Your task to perform on an android device: change your default location settings in chrome Image 0: 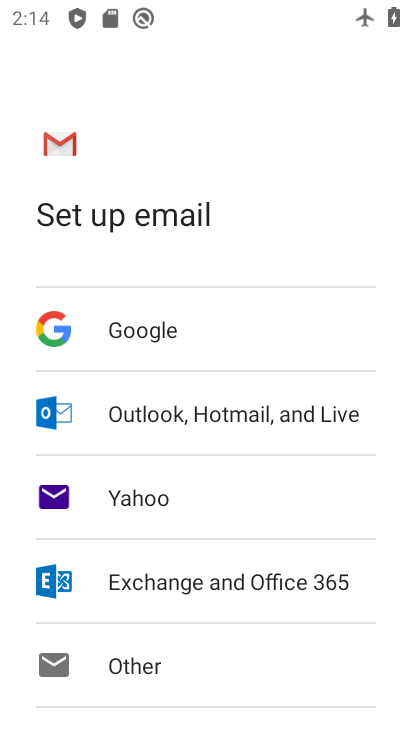
Step 0: press home button
Your task to perform on an android device: change your default location settings in chrome Image 1: 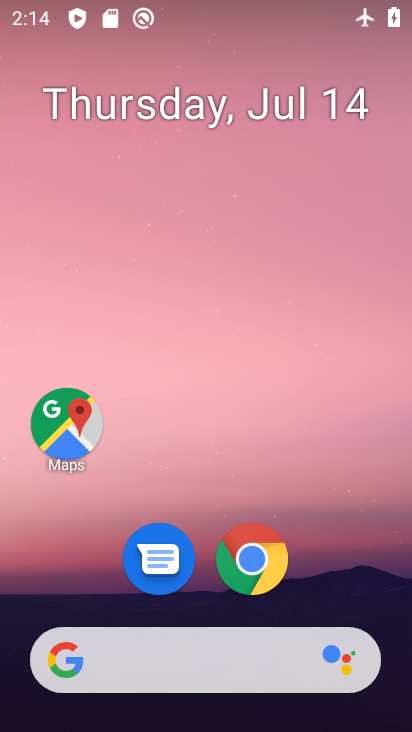
Step 1: drag from (237, 479) to (295, 102)
Your task to perform on an android device: change your default location settings in chrome Image 2: 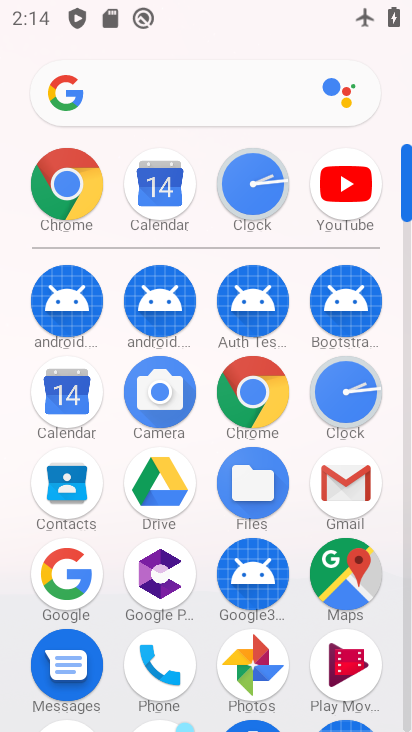
Step 2: drag from (208, 494) to (202, 310)
Your task to perform on an android device: change your default location settings in chrome Image 3: 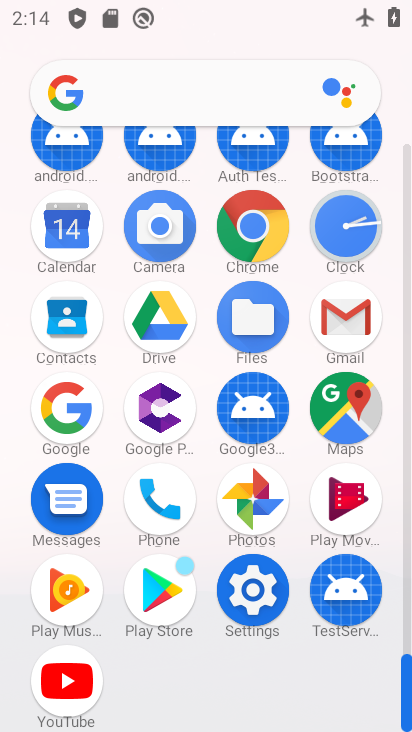
Step 3: click (240, 242)
Your task to perform on an android device: change your default location settings in chrome Image 4: 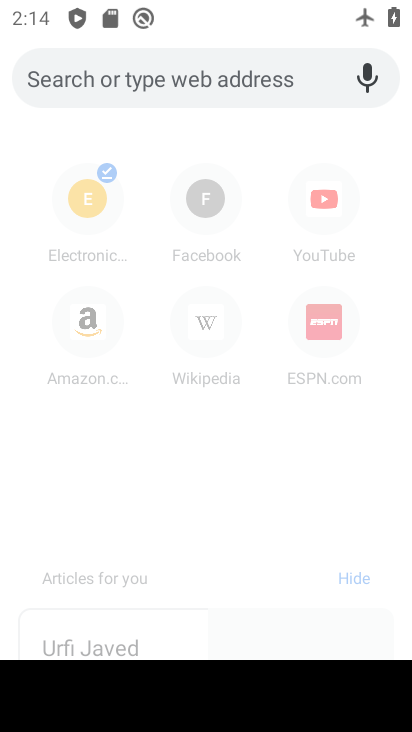
Step 4: click (214, 461)
Your task to perform on an android device: change your default location settings in chrome Image 5: 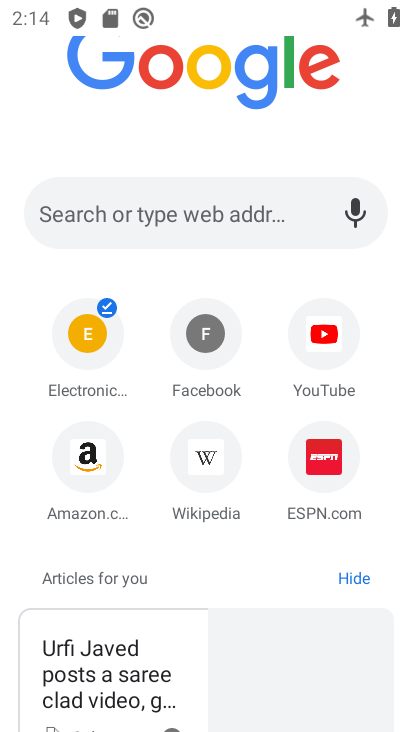
Step 5: drag from (331, 265) to (295, 646)
Your task to perform on an android device: change your default location settings in chrome Image 6: 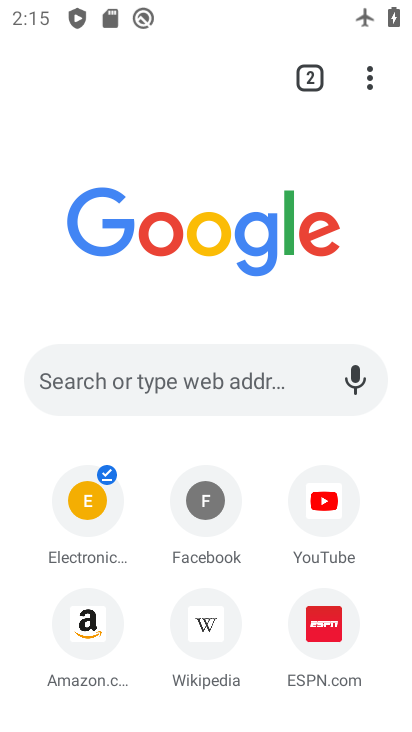
Step 6: click (373, 89)
Your task to perform on an android device: change your default location settings in chrome Image 7: 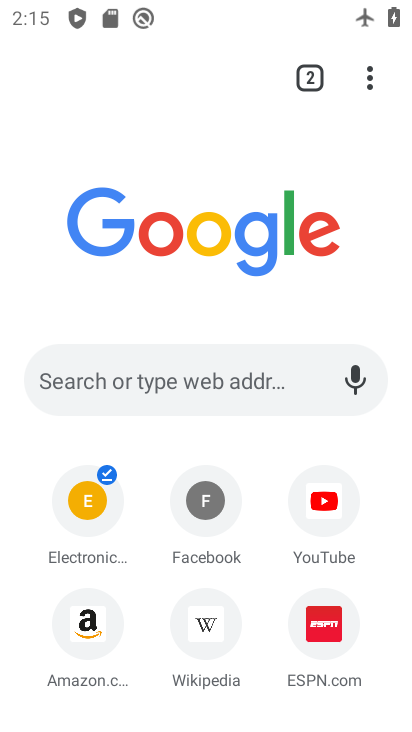
Step 7: click (373, 89)
Your task to perform on an android device: change your default location settings in chrome Image 8: 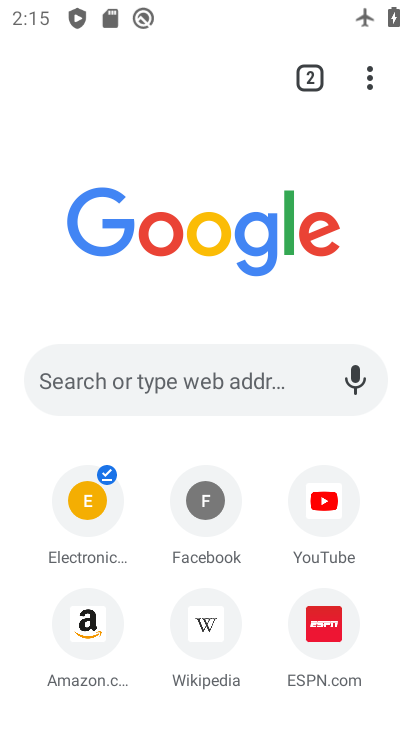
Step 8: click (373, 89)
Your task to perform on an android device: change your default location settings in chrome Image 9: 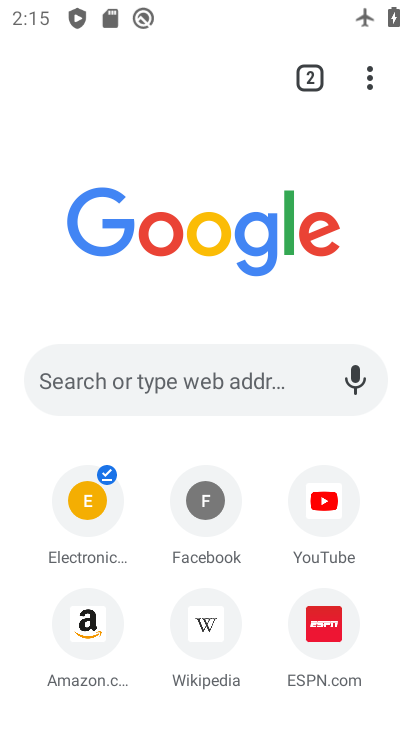
Step 9: click (373, 89)
Your task to perform on an android device: change your default location settings in chrome Image 10: 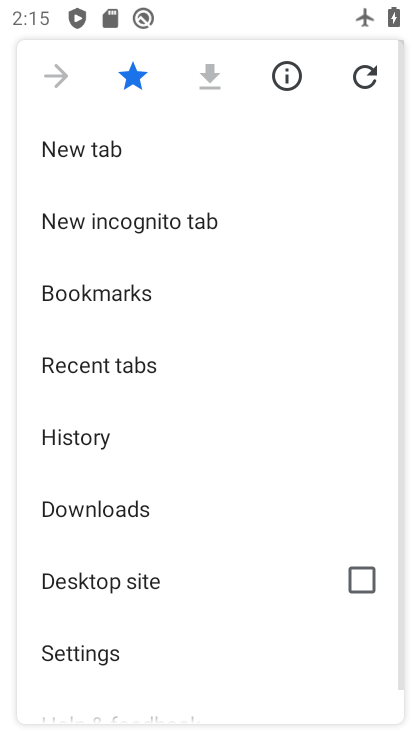
Step 10: drag from (157, 577) to (202, 216)
Your task to perform on an android device: change your default location settings in chrome Image 11: 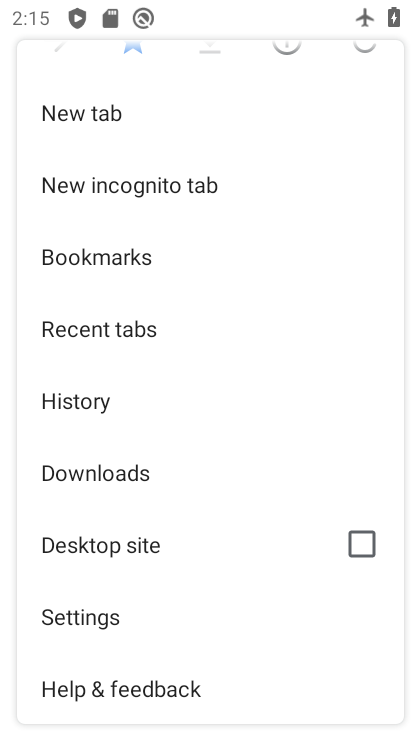
Step 11: drag from (148, 595) to (175, 331)
Your task to perform on an android device: change your default location settings in chrome Image 12: 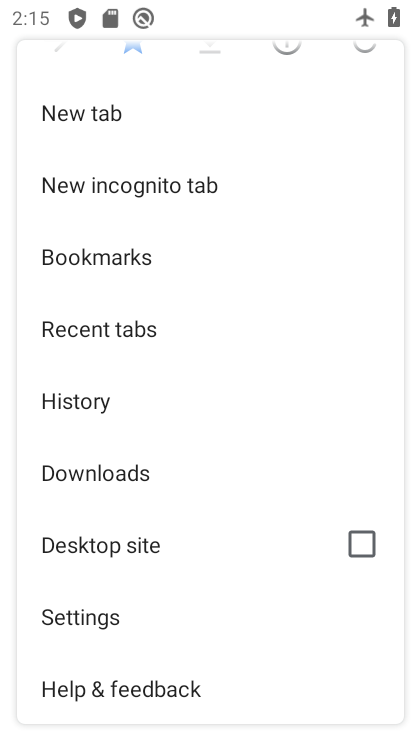
Step 12: click (91, 616)
Your task to perform on an android device: change your default location settings in chrome Image 13: 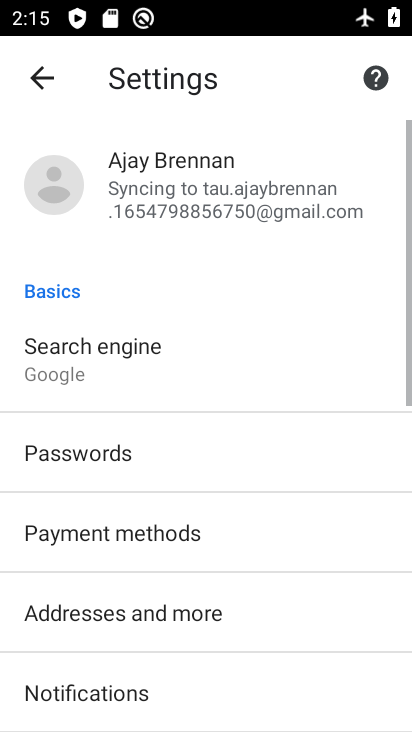
Step 13: drag from (115, 531) to (155, 359)
Your task to perform on an android device: change your default location settings in chrome Image 14: 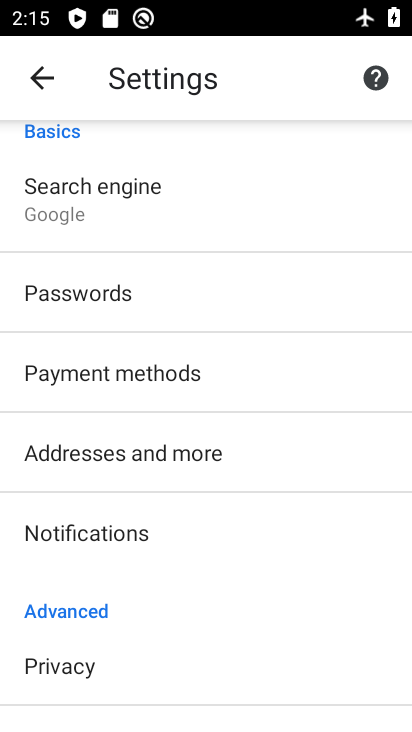
Step 14: drag from (142, 592) to (151, 386)
Your task to perform on an android device: change your default location settings in chrome Image 15: 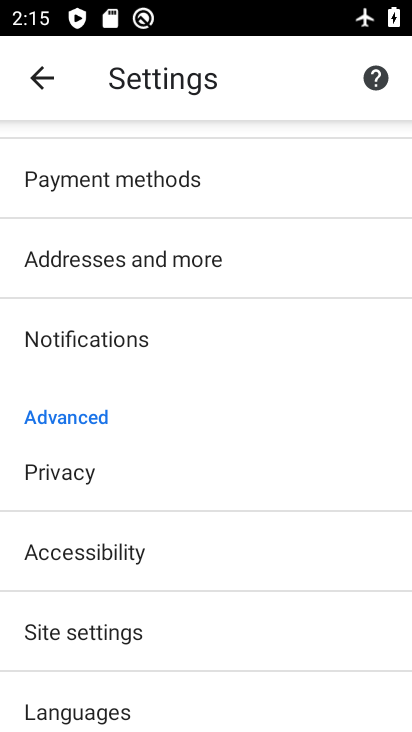
Step 15: drag from (184, 582) to (226, 318)
Your task to perform on an android device: change your default location settings in chrome Image 16: 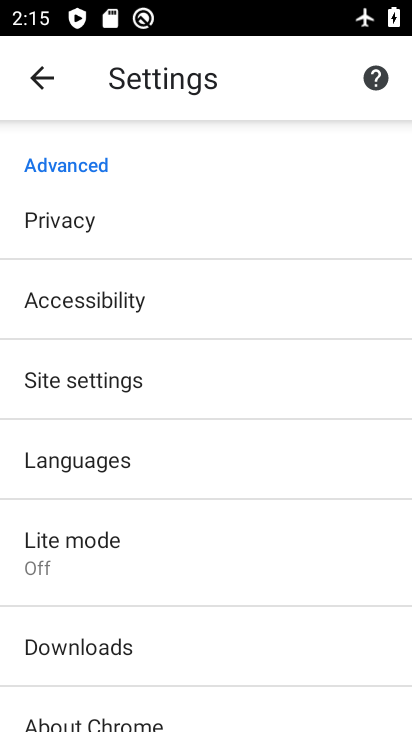
Step 16: click (85, 370)
Your task to perform on an android device: change your default location settings in chrome Image 17: 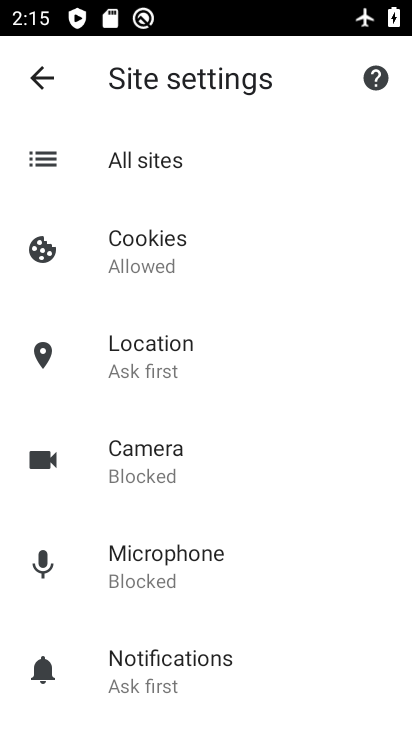
Step 17: drag from (166, 565) to (218, 249)
Your task to perform on an android device: change your default location settings in chrome Image 18: 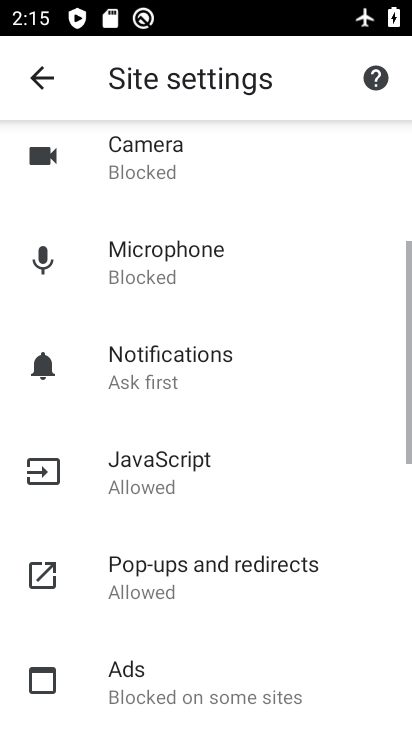
Step 18: drag from (204, 365) to (169, 726)
Your task to perform on an android device: change your default location settings in chrome Image 19: 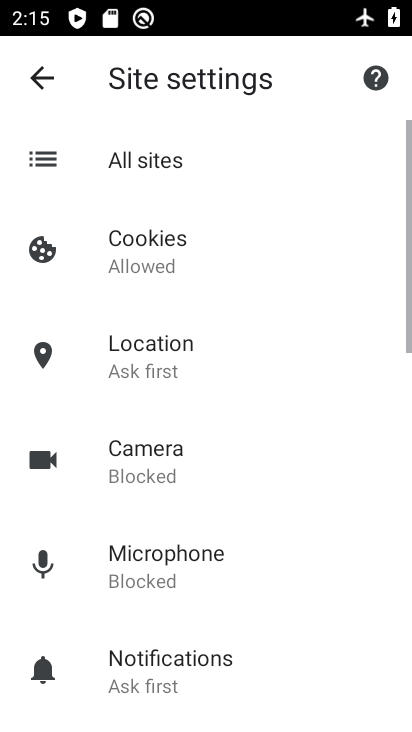
Step 19: click (166, 358)
Your task to perform on an android device: change your default location settings in chrome Image 20: 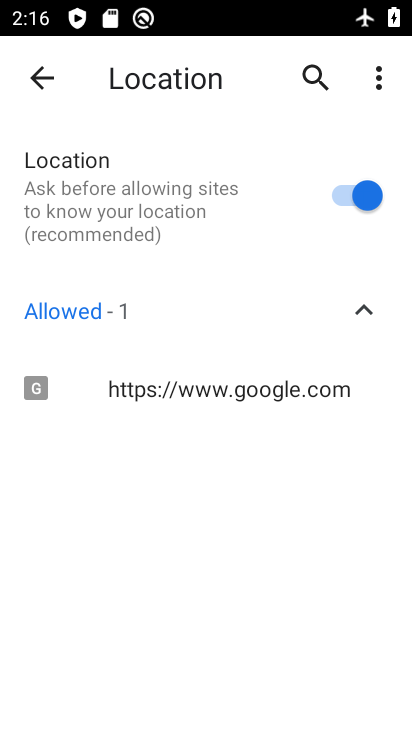
Step 20: click (331, 193)
Your task to perform on an android device: change your default location settings in chrome Image 21: 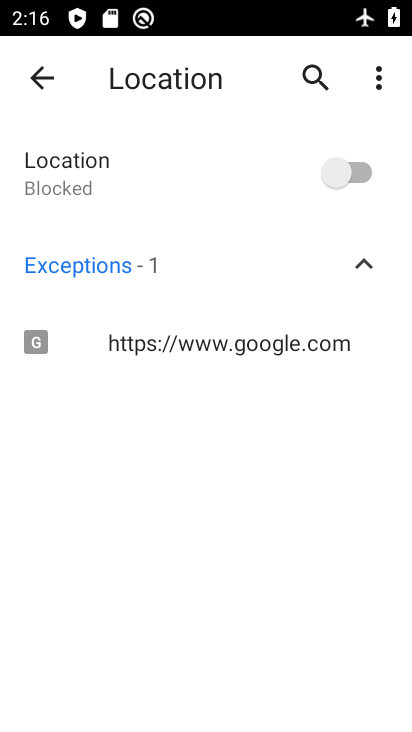
Step 21: task complete